Your task to perform on an android device: turn vacation reply on in the gmail app Image 0: 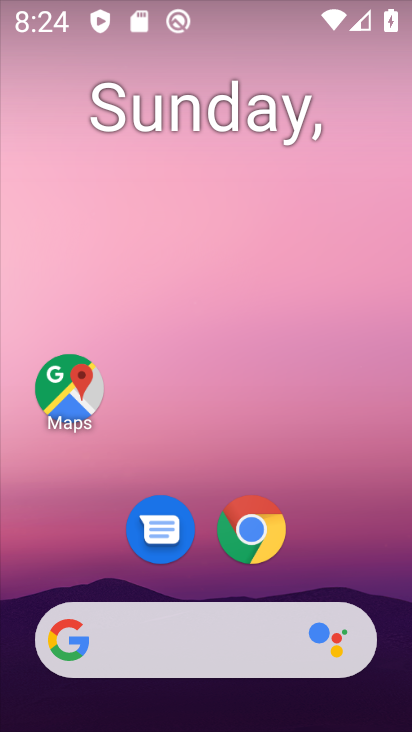
Step 0: drag from (294, 572) to (271, 160)
Your task to perform on an android device: turn vacation reply on in the gmail app Image 1: 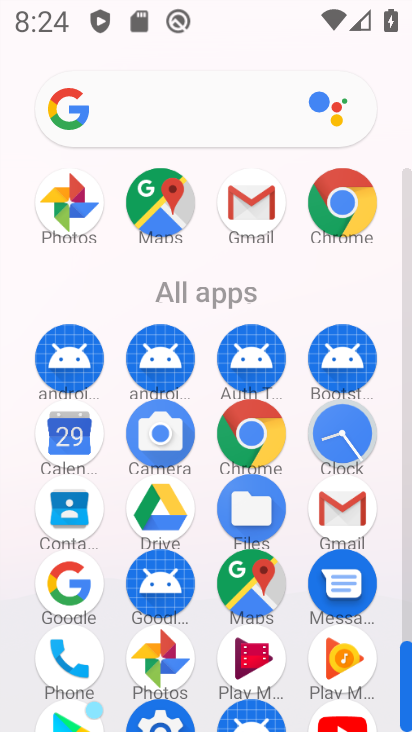
Step 1: click (338, 508)
Your task to perform on an android device: turn vacation reply on in the gmail app Image 2: 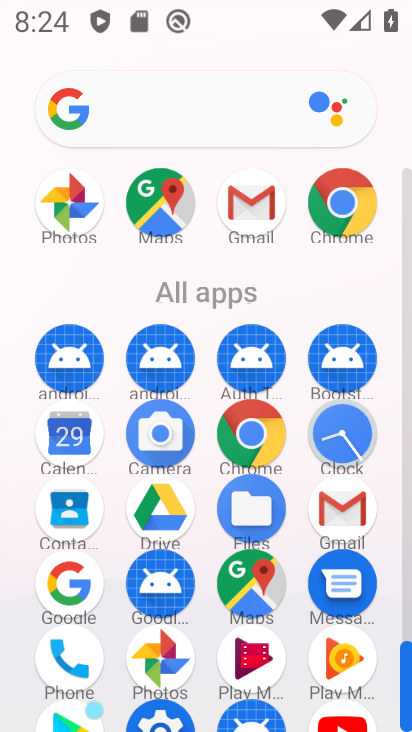
Step 2: click (338, 508)
Your task to perform on an android device: turn vacation reply on in the gmail app Image 3: 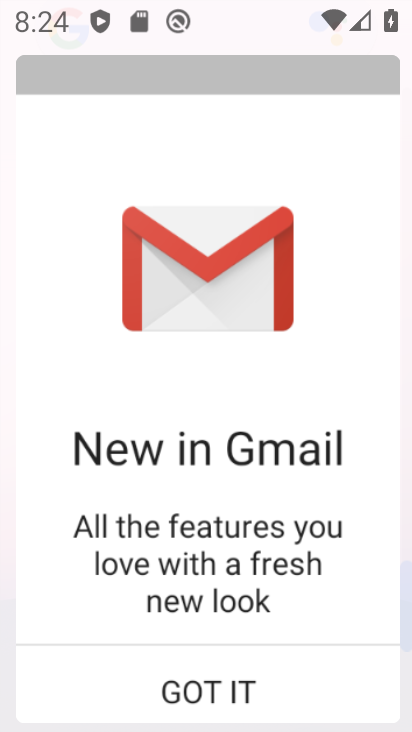
Step 3: click (343, 502)
Your task to perform on an android device: turn vacation reply on in the gmail app Image 4: 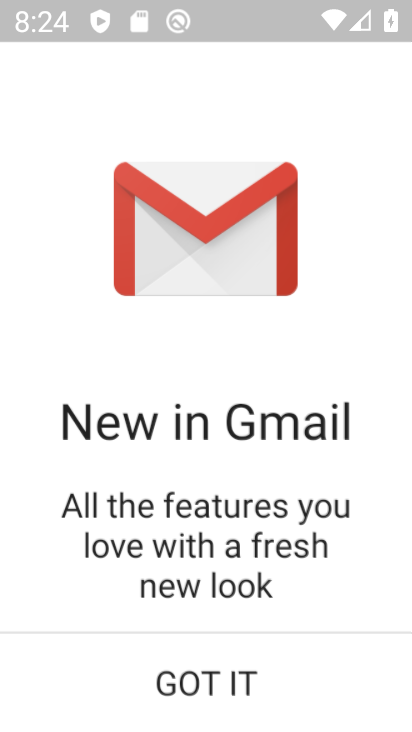
Step 4: click (343, 502)
Your task to perform on an android device: turn vacation reply on in the gmail app Image 5: 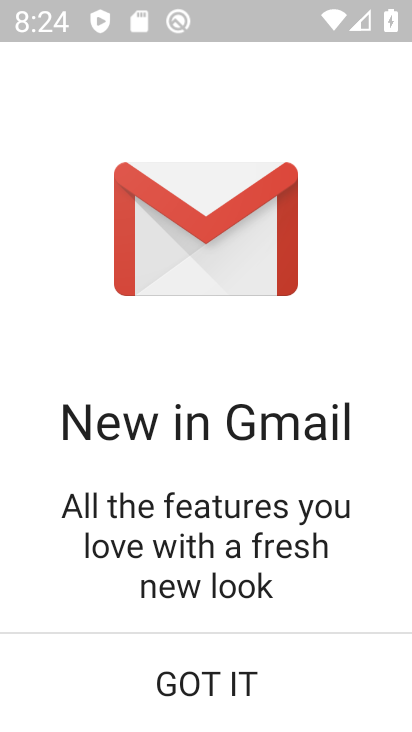
Step 5: click (343, 502)
Your task to perform on an android device: turn vacation reply on in the gmail app Image 6: 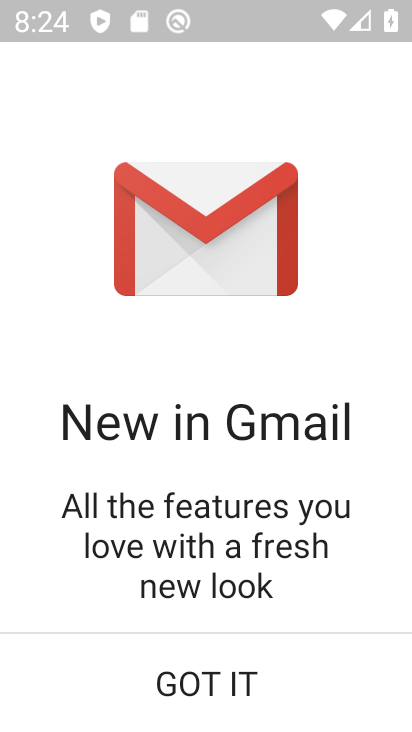
Step 6: click (214, 667)
Your task to perform on an android device: turn vacation reply on in the gmail app Image 7: 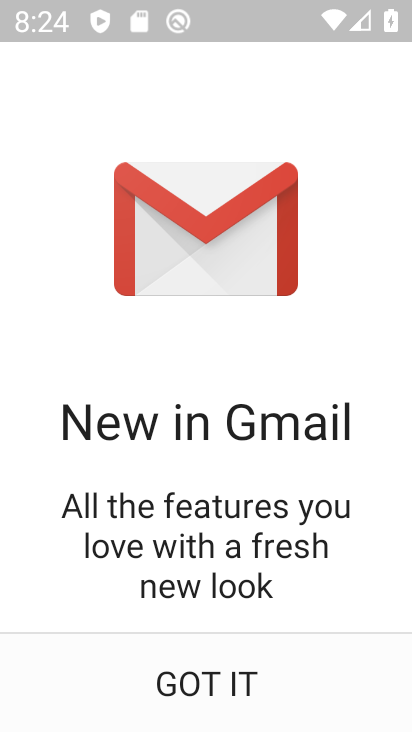
Step 7: click (235, 674)
Your task to perform on an android device: turn vacation reply on in the gmail app Image 8: 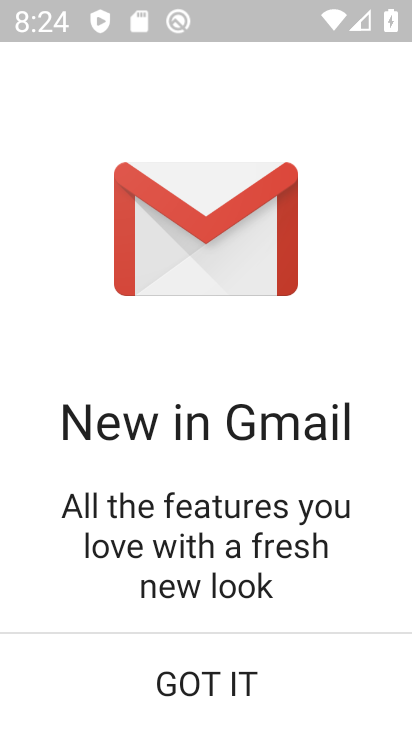
Step 8: click (235, 674)
Your task to perform on an android device: turn vacation reply on in the gmail app Image 9: 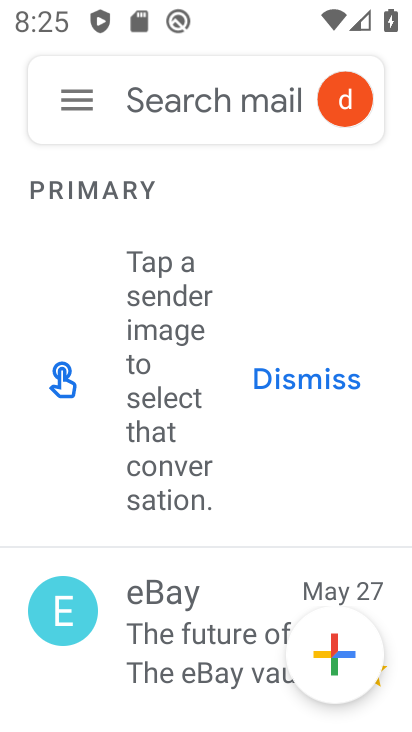
Step 9: drag from (210, 559) to (194, 114)
Your task to perform on an android device: turn vacation reply on in the gmail app Image 10: 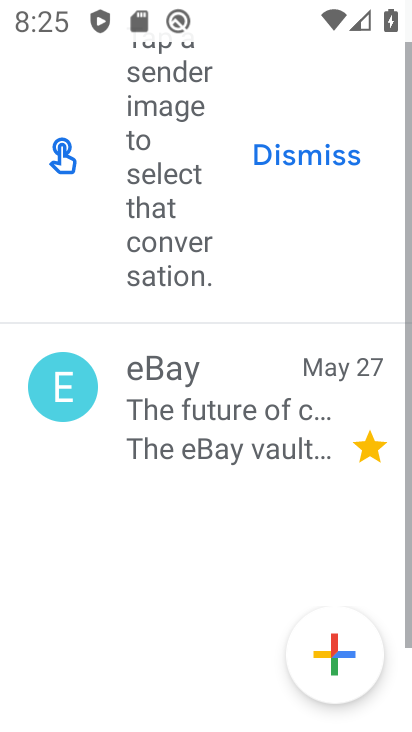
Step 10: drag from (237, 439) to (206, 47)
Your task to perform on an android device: turn vacation reply on in the gmail app Image 11: 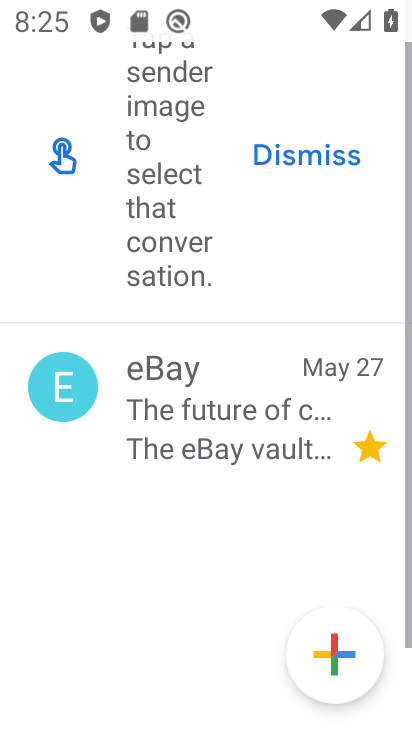
Step 11: drag from (181, 343) to (199, 63)
Your task to perform on an android device: turn vacation reply on in the gmail app Image 12: 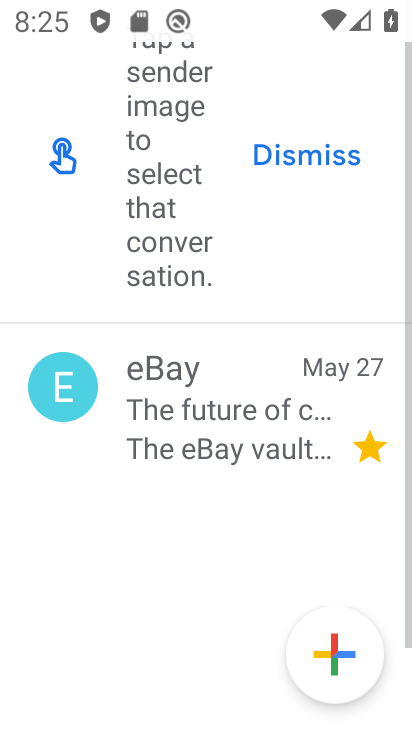
Step 12: drag from (230, 315) to (235, 113)
Your task to perform on an android device: turn vacation reply on in the gmail app Image 13: 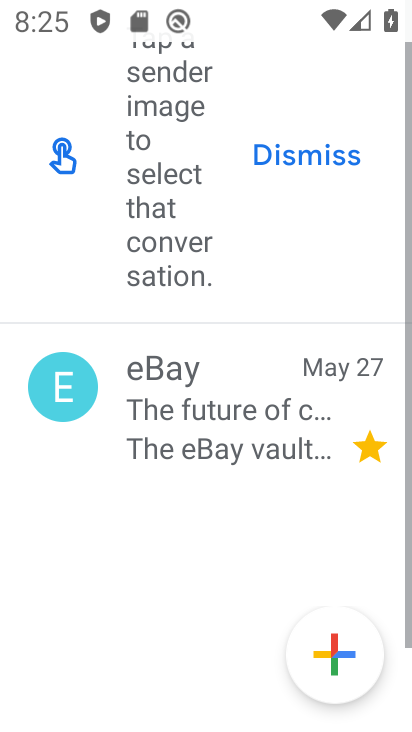
Step 13: drag from (232, 490) to (228, 109)
Your task to perform on an android device: turn vacation reply on in the gmail app Image 14: 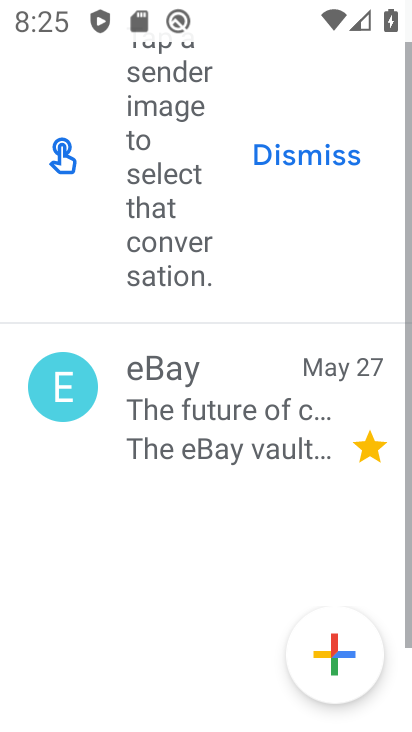
Step 14: drag from (205, 425) to (157, 73)
Your task to perform on an android device: turn vacation reply on in the gmail app Image 15: 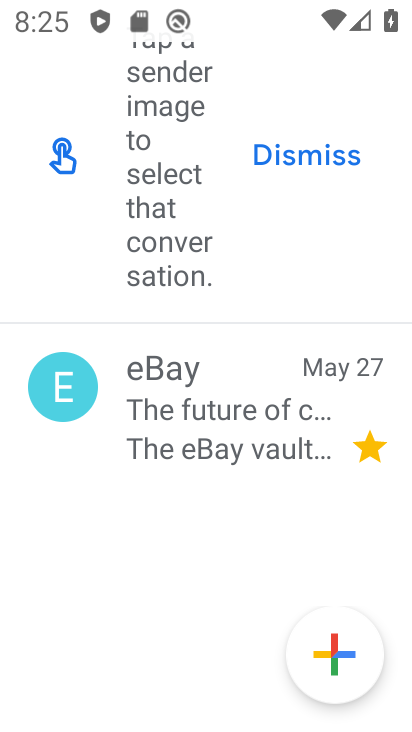
Step 15: press back button
Your task to perform on an android device: turn vacation reply on in the gmail app Image 16: 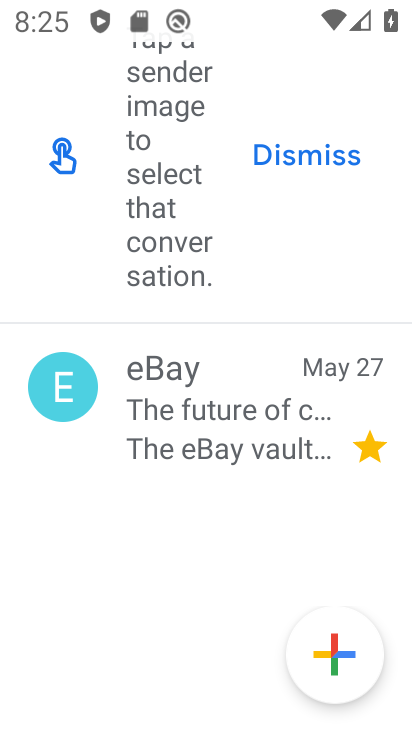
Step 16: press back button
Your task to perform on an android device: turn vacation reply on in the gmail app Image 17: 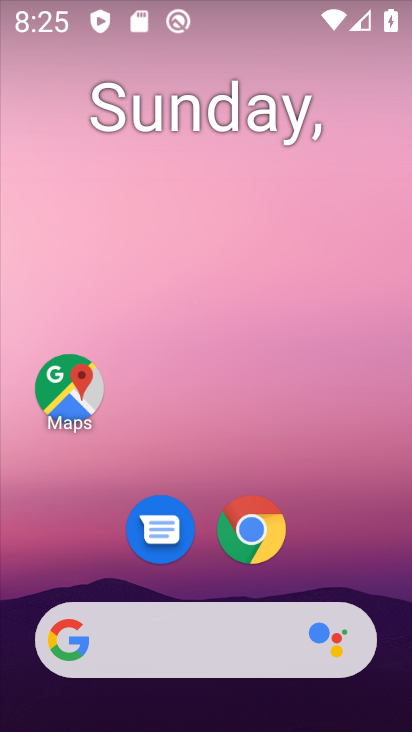
Step 17: drag from (194, 621) to (100, 69)
Your task to perform on an android device: turn vacation reply on in the gmail app Image 18: 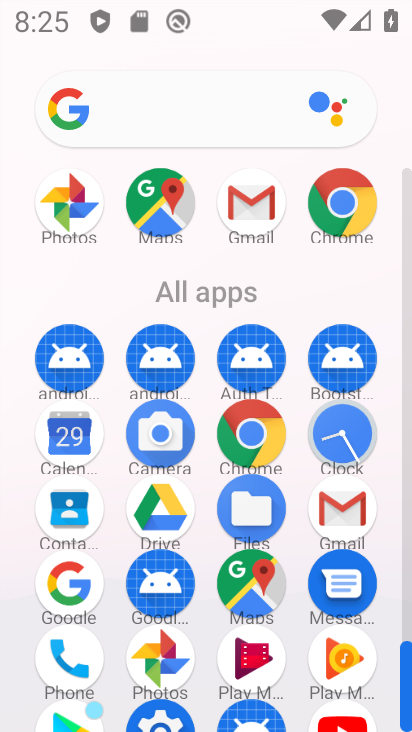
Step 18: drag from (200, 438) to (186, 0)
Your task to perform on an android device: turn vacation reply on in the gmail app Image 19: 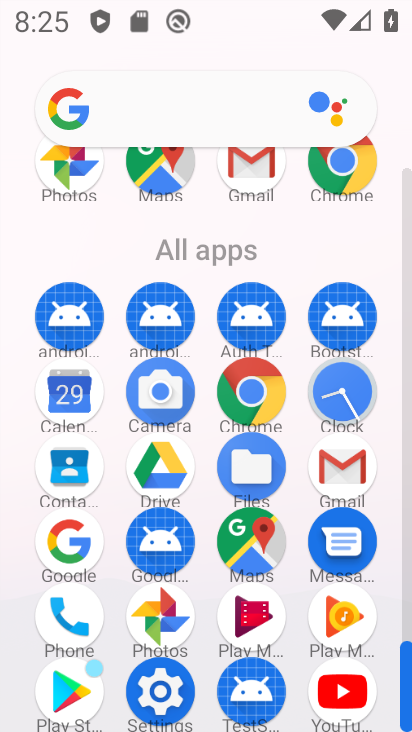
Step 19: click (343, 476)
Your task to perform on an android device: turn vacation reply on in the gmail app Image 20: 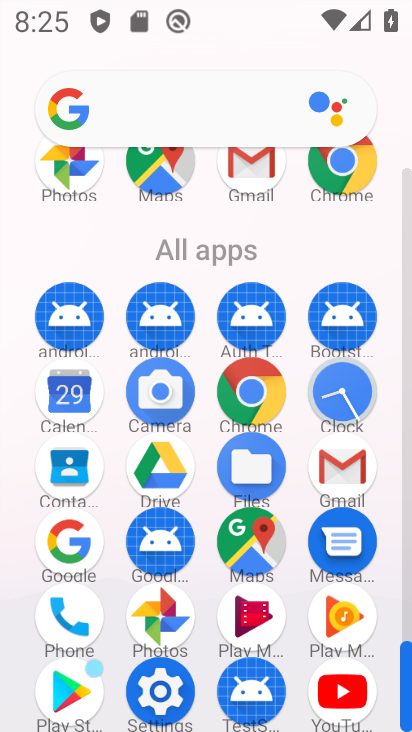
Step 20: click (343, 478)
Your task to perform on an android device: turn vacation reply on in the gmail app Image 21: 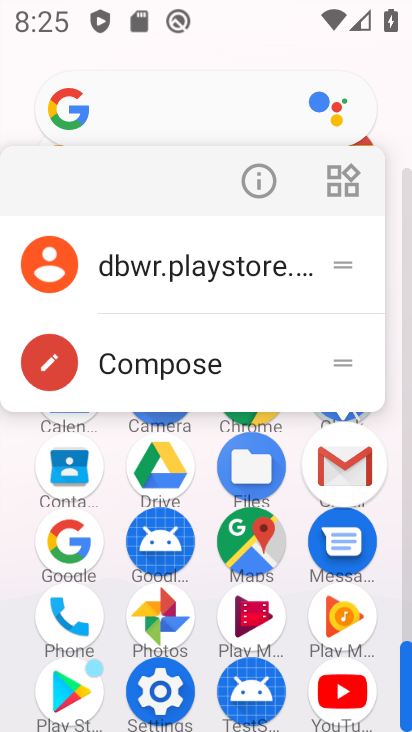
Step 21: click (347, 474)
Your task to perform on an android device: turn vacation reply on in the gmail app Image 22: 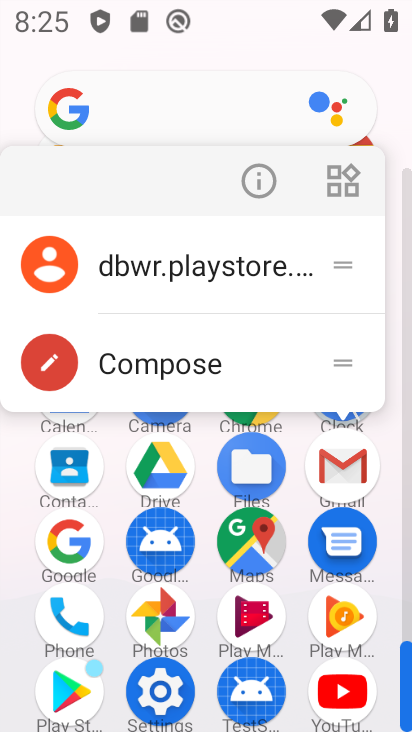
Step 22: click (347, 474)
Your task to perform on an android device: turn vacation reply on in the gmail app Image 23: 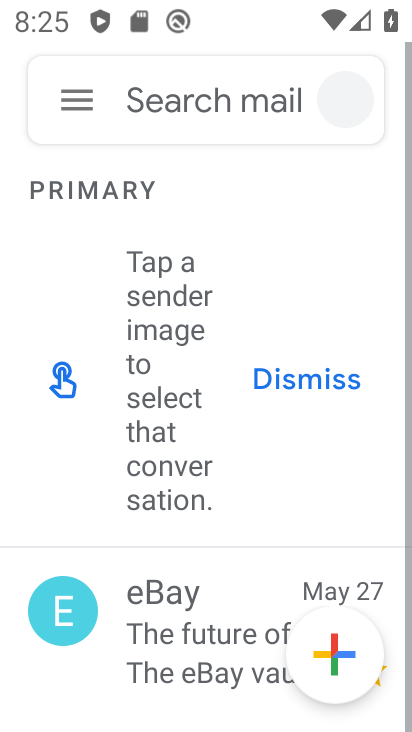
Step 23: click (345, 474)
Your task to perform on an android device: turn vacation reply on in the gmail app Image 24: 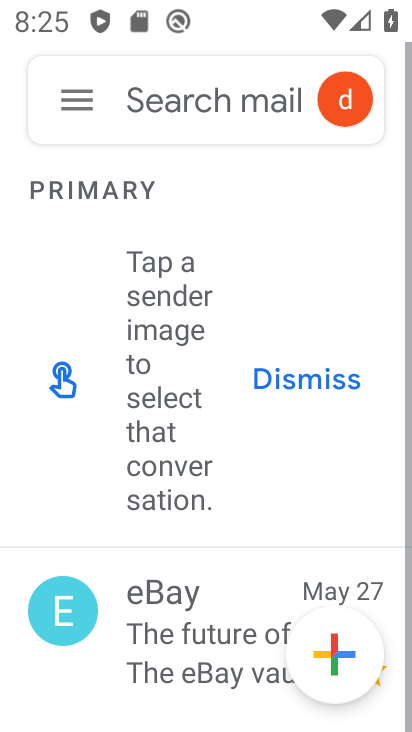
Step 24: drag from (201, 555) to (201, 176)
Your task to perform on an android device: turn vacation reply on in the gmail app Image 25: 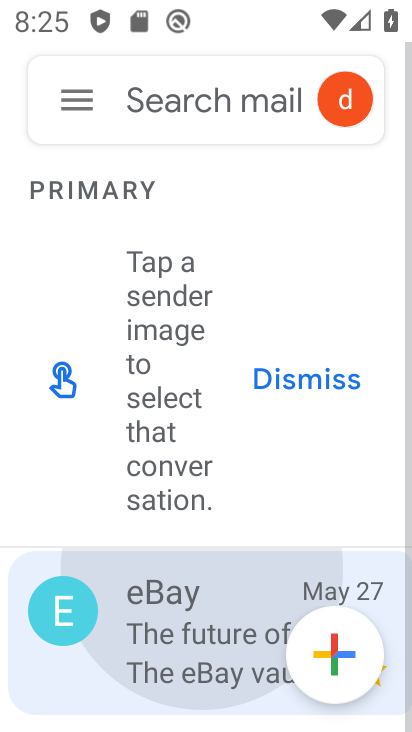
Step 25: drag from (186, 527) to (160, 135)
Your task to perform on an android device: turn vacation reply on in the gmail app Image 26: 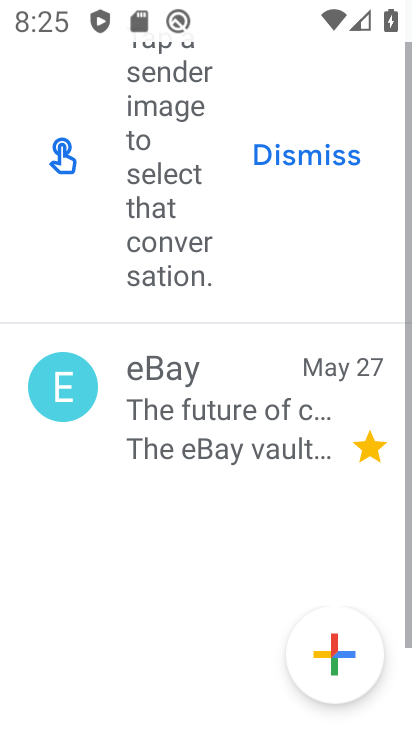
Step 26: drag from (160, 452) to (109, 57)
Your task to perform on an android device: turn vacation reply on in the gmail app Image 27: 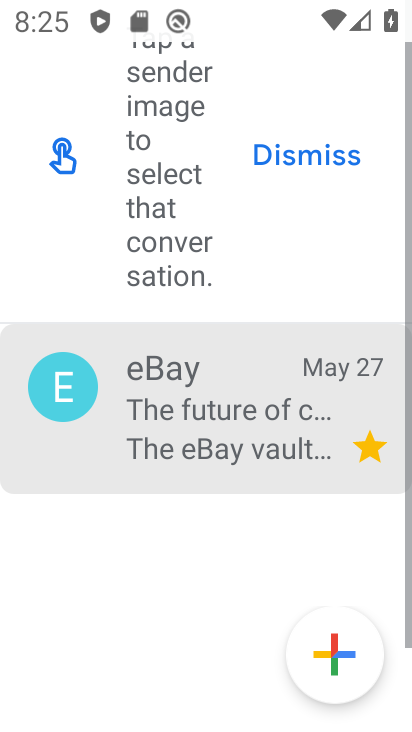
Step 27: drag from (132, 335) to (127, 79)
Your task to perform on an android device: turn vacation reply on in the gmail app Image 28: 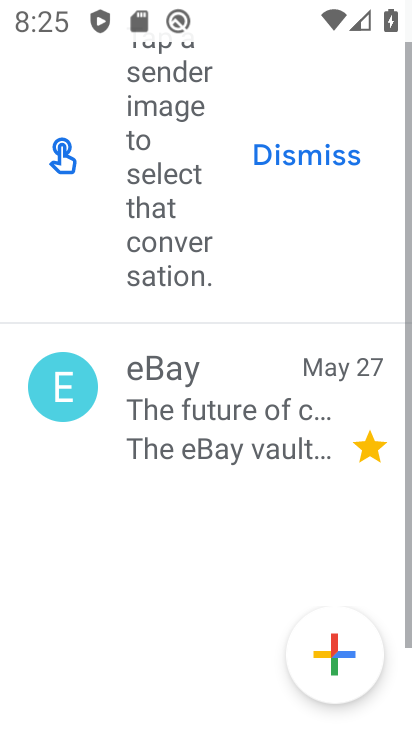
Step 28: drag from (191, 491) to (150, 267)
Your task to perform on an android device: turn vacation reply on in the gmail app Image 29: 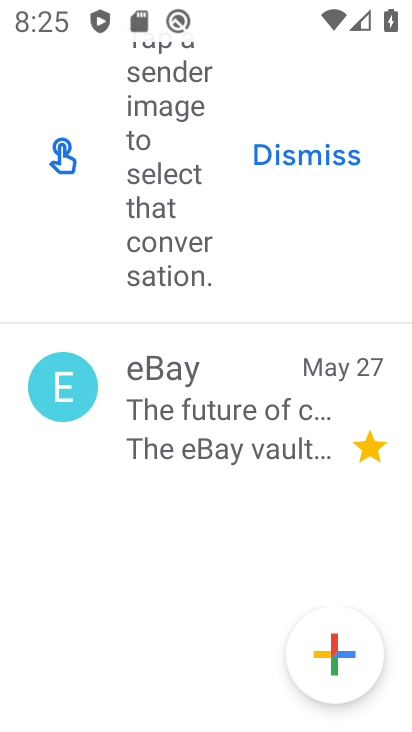
Step 29: drag from (170, 377) to (143, 30)
Your task to perform on an android device: turn vacation reply on in the gmail app Image 30: 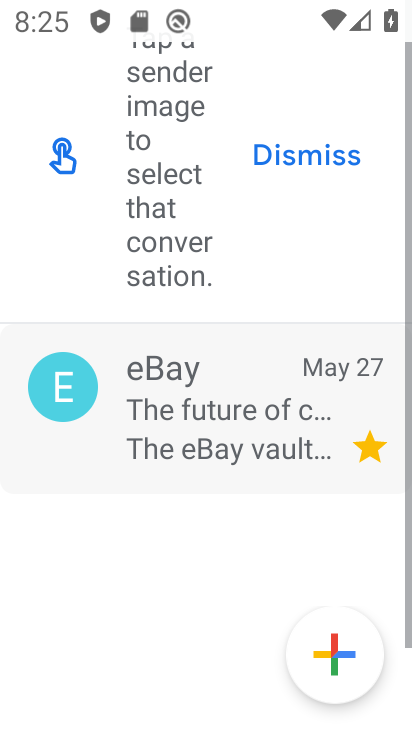
Step 30: drag from (107, 140) to (197, 624)
Your task to perform on an android device: turn vacation reply on in the gmail app Image 31: 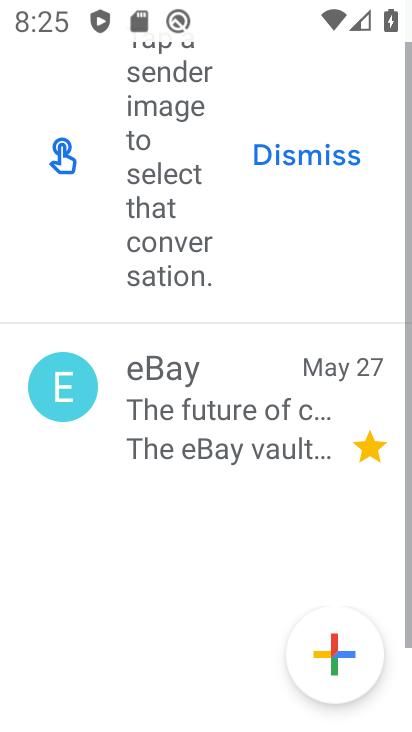
Step 31: drag from (144, 284) to (224, 562)
Your task to perform on an android device: turn vacation reply on in the gmail app Image 32: 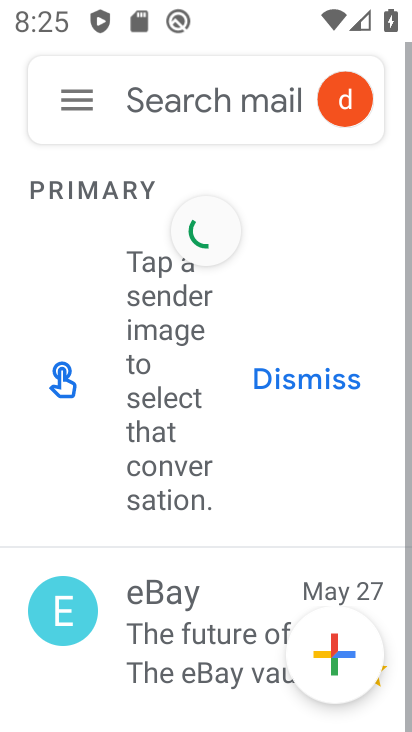
Step 32: drag from (181, 210) to (279, 584)
Your task to perform on an android device: turn vacation reply on in the gmail app Image 33: 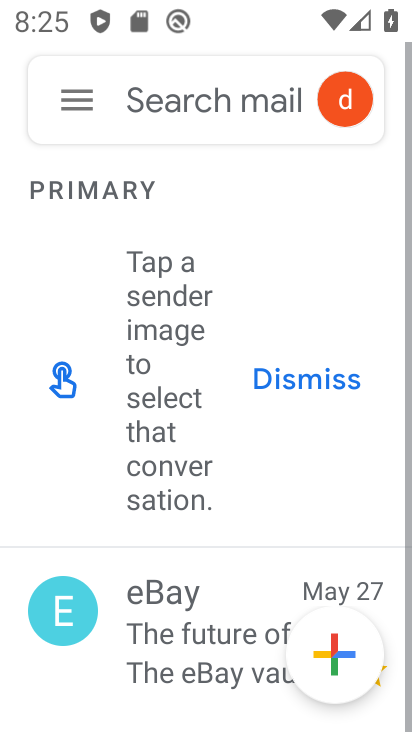
Step 33: click (80, 102)
Your task to perform on an android device: turn vacation reply on in the gmail app Image 34: 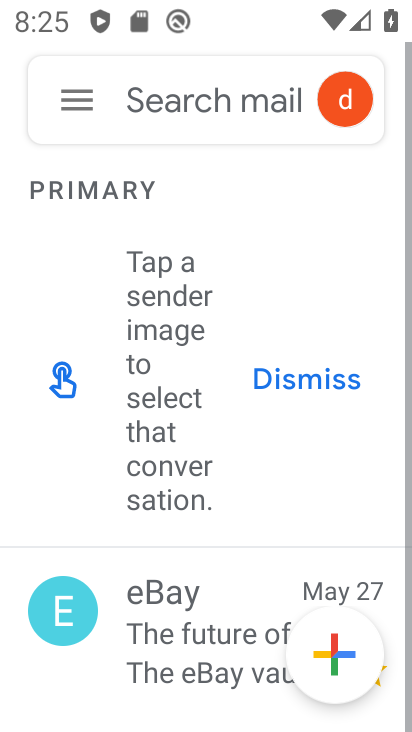
Step 34: click (81, 101)
Your task to perform on an android device: turn vacation reply on in the gmail app Image 35: 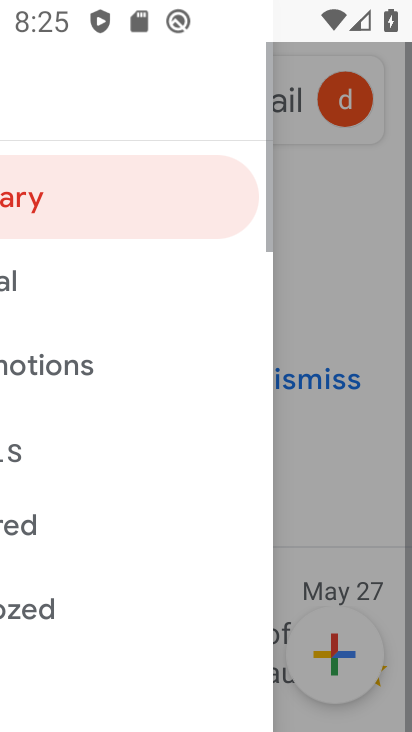
Step 35: click (81, 101)
Your task to perform on an android device: turn vacation reply on in the gmail app Image 36: 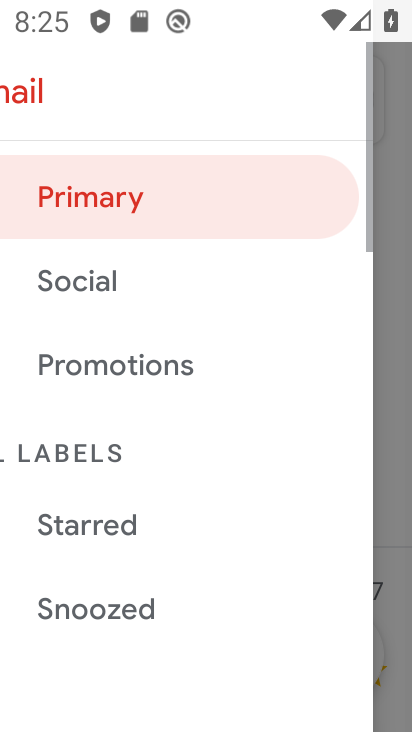
Step 36: click (81, 101)
Your task to perform on an android device: turn vacation reply on in the gmail app Image 37: 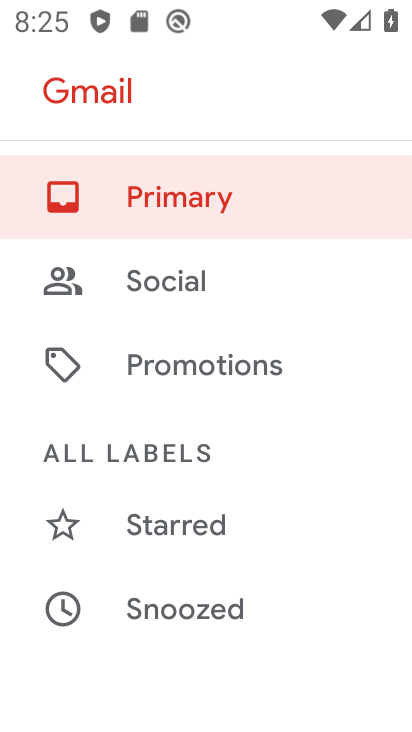
Step 37: drag from (187, 595) to (172, 240)
Your task to perform on an android device: turn vacation reply on in the gmail app Image 38: 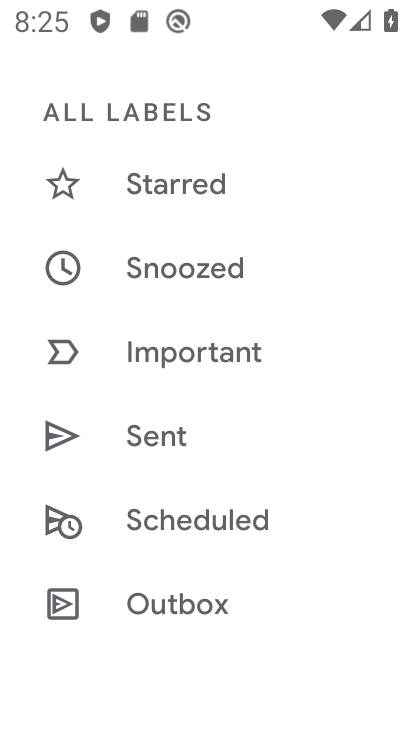
Step 38: drag from (191, 502) to (190, 208)
Your task to perform on an android device: turn vacation reply on in the gmail app Image 39: 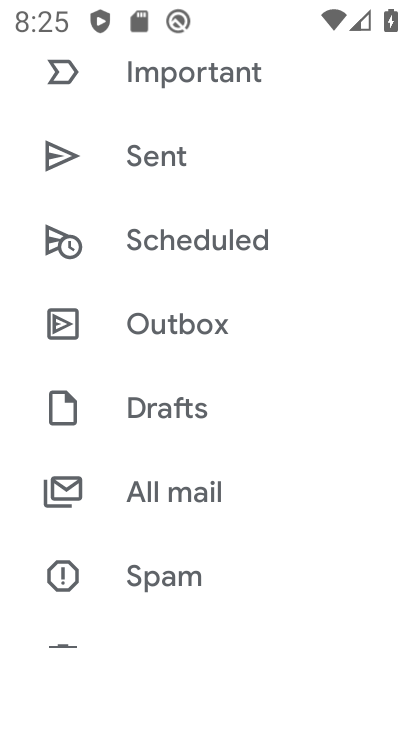
Step 39: drag from (171, 484) to (175, 216)
Your task to perform on an android device: turn vacation reply on in the gmail app Image 40: 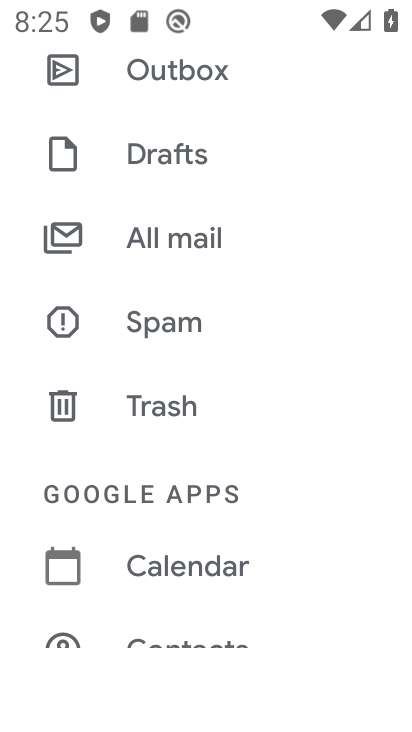
Step 40: drag from (202, 526) to (184, 208)
Your task to perform on an android device: turn vacation reply on in the gmail app Image 41: 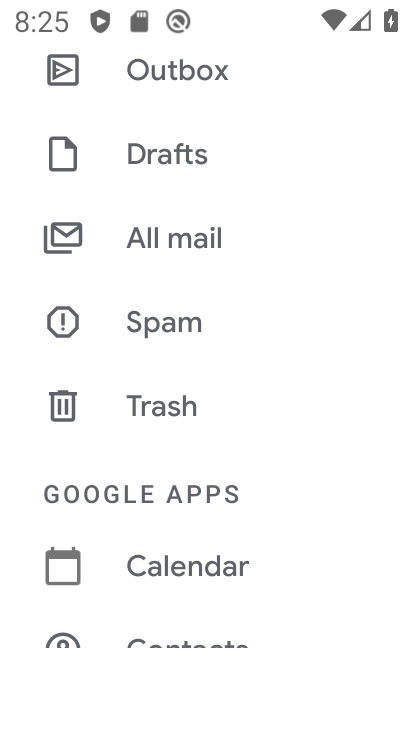
Step 41: drag from (203, 381) to (177, 157)
Your task to perform on an android device: turn vacation reply on in the gmail app Image 42: 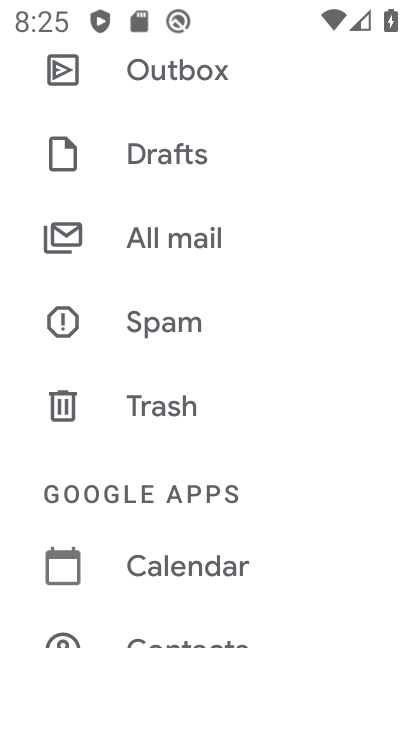
Step 42: drag from (189, 367) to (191, 109)
Your task to perform on an android device: turn vacation reply on in the gmail app Image 43: 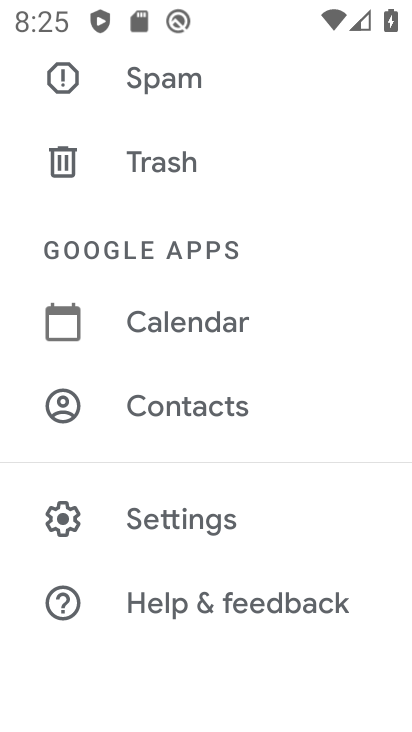
Step 43: drag from (164, 496) to (192, 103)
Your task to perform on an android device: turn vacation reply on in the gmail app Image 44: 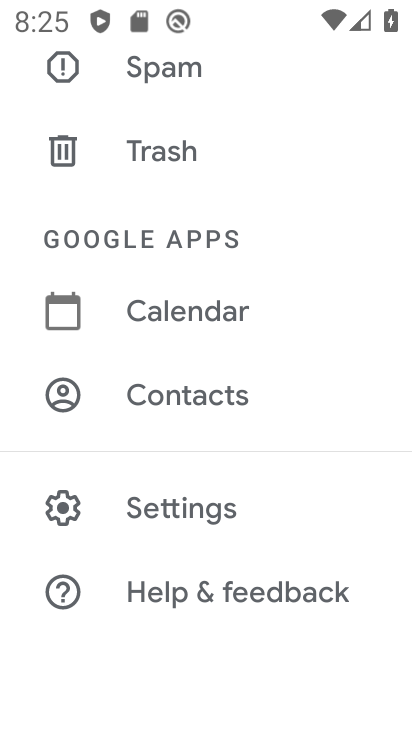
Step 44: click (169, 502)
Your task to perform on an android device: turn vacation reply on in the gmail app Image 45: 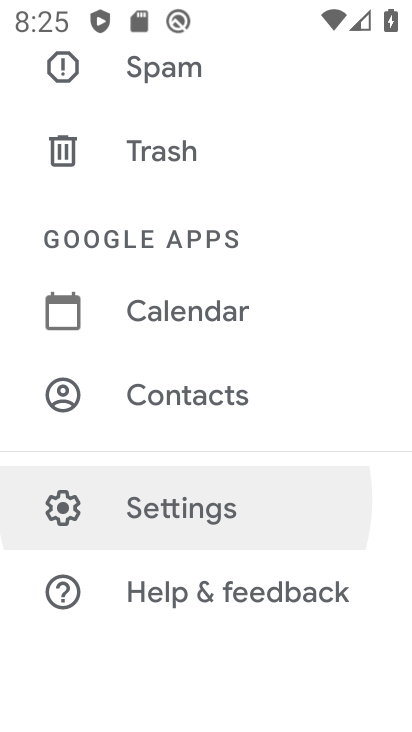
Step 45: click (170, 502)
Your task to perform on an android device: turn vacation reply on in the gmail app Image 46: 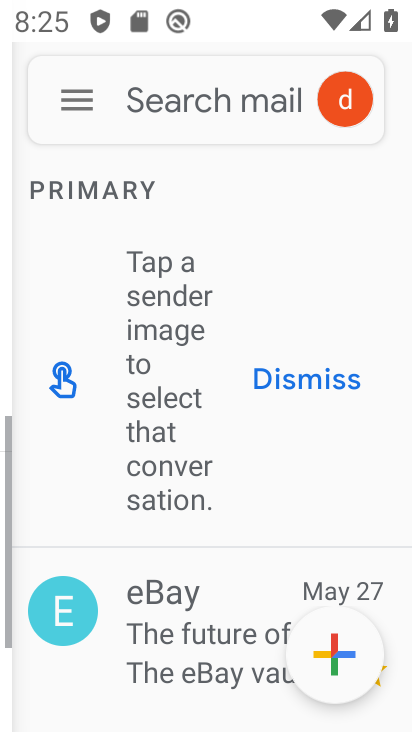
Step 46: click (171, 502)
Your task to perform on an android device: turn vacation reply on in the gmail app Image 47: 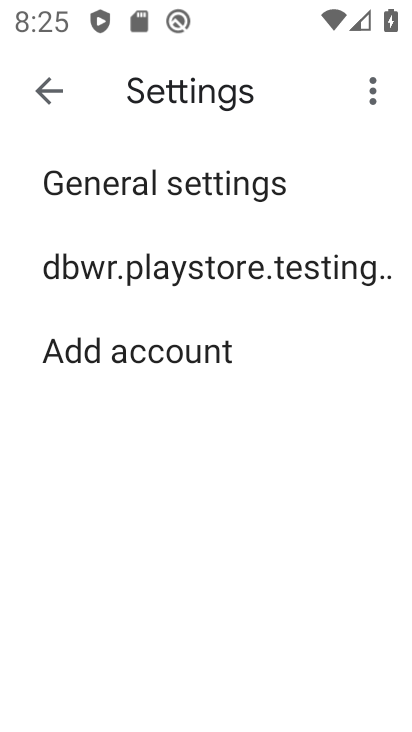
Step 47: click (175, 269)
Your task to perform on an android device: turn vacation reply on in the gmail app Image 48: 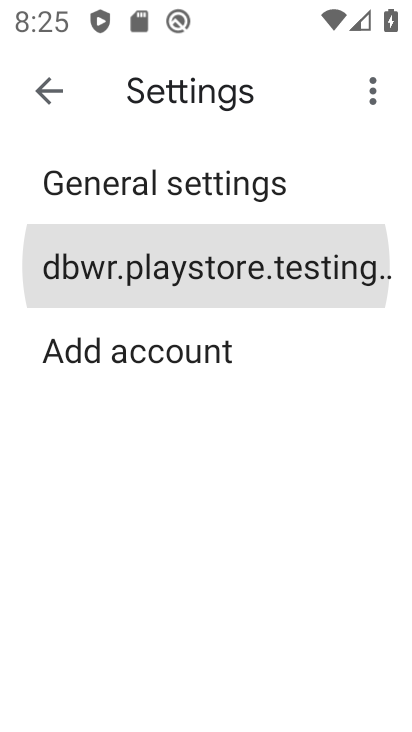
Step 48: click (175, 269)
Your task to perform on an android device: turn vacation reply on in the gmail app Image 49: 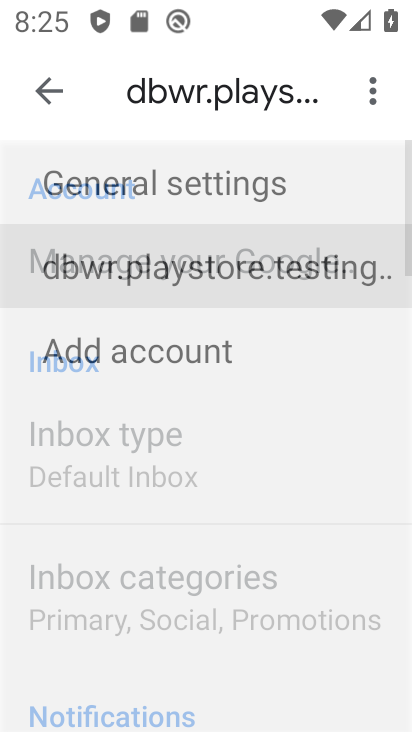
Step 49: click (175, 269)
Your task to perform on an android device: turn vacation reply on in the gmail app Image 50: 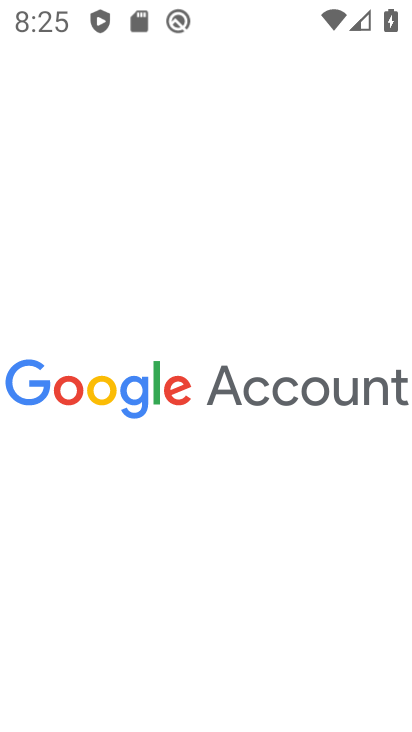
Step 50: drag from (143, 459) to (145, 199)
Your task to perform on an android device: turn vacation reply on in the gmail app Image 51: 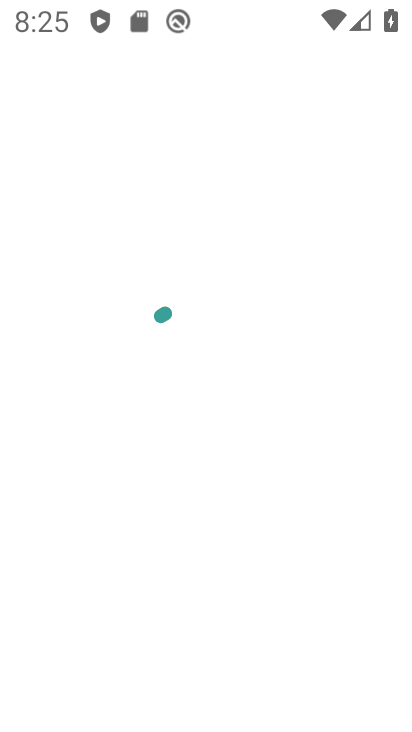
Step 51: press back button
Your task to perform on an android device: turn vacation reply on in the gmail app Image 52: 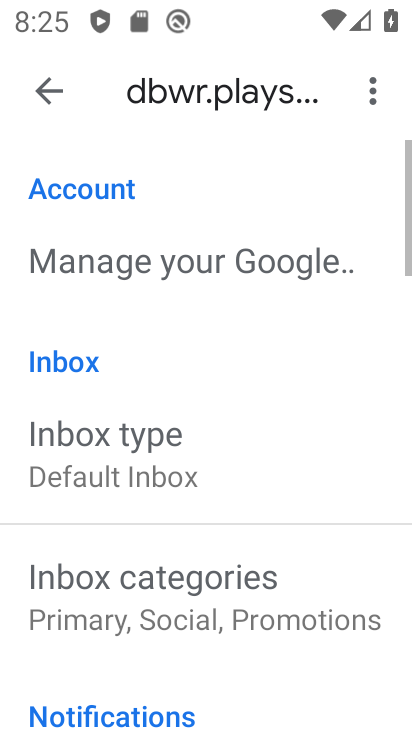
Step 52: drag from (143, 524) to (133, 214)
Your task to perform on an android device: turn vacation reply on in the gmail app Image 53: 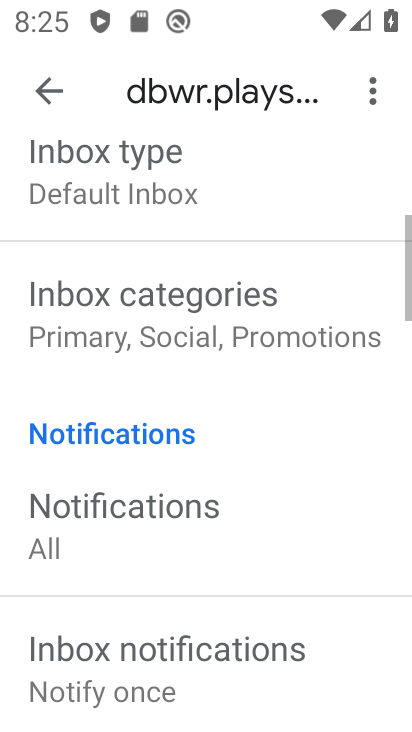
Step 53: drag from (177, 488) to (195, 136)
Your task to perform on an android device: turn vacation reply on in the gmail app Image 54: 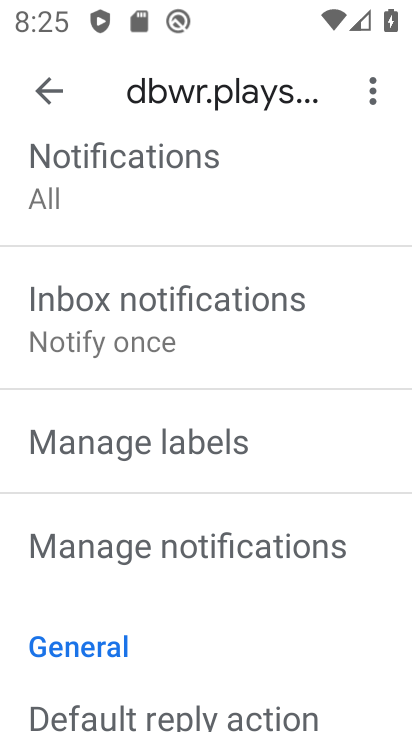
Step 54: drag from (185, 499) to (159, 201)
Your task to perform on an android device: turn vacation reply on in the gmail app Image 55: 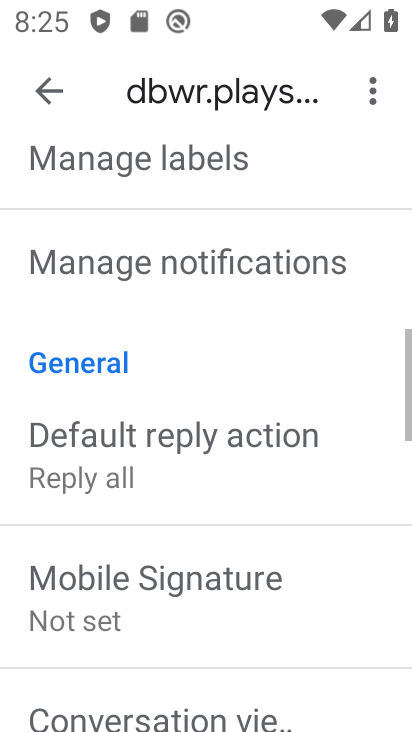
Step 55: drag from (171, 315) to (171, 136)
Your task to perform on an android device: turn vacation reply on in the gmail app Image 56: 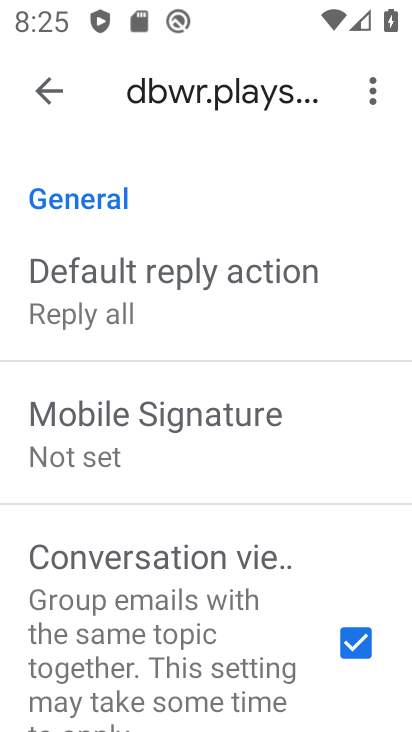
Step 56: drag from (130, 602) to (139, 245)
Your task to perform on an android device: turn vacation reply on in the gmail app Image 57: 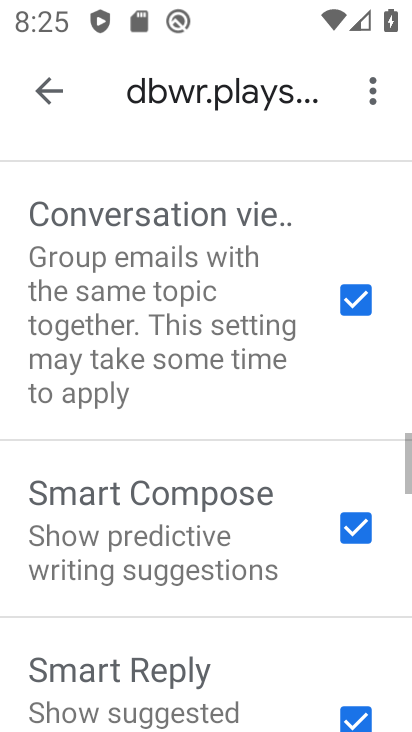
Step 57: drag from (146, 430) to (152, 126)
Your task to perform on an android device: turn vacation reply on in the gmail app Image 58: 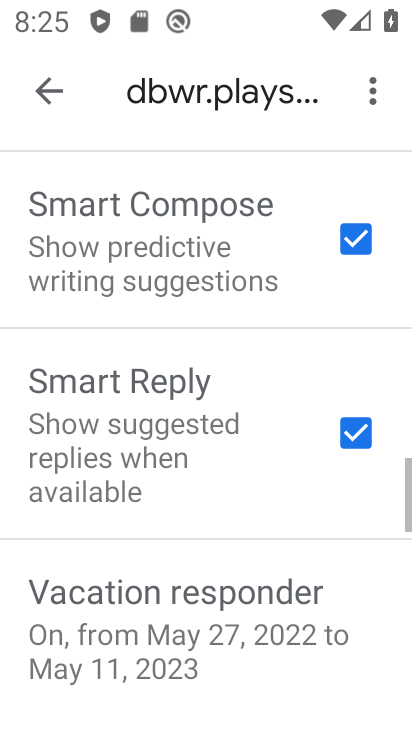
Step 58: drag from (166, 413) to (184, 108)
Your task to perform on an android device: turn vacation reply on in the gmail app Image 59: 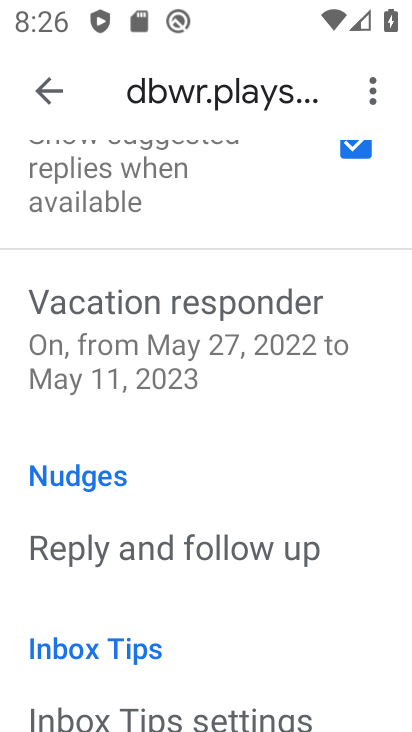
Step 59: click (168, 325)
Your task to perform on an android device: turn vacation reply on in the gmail app Image 60: 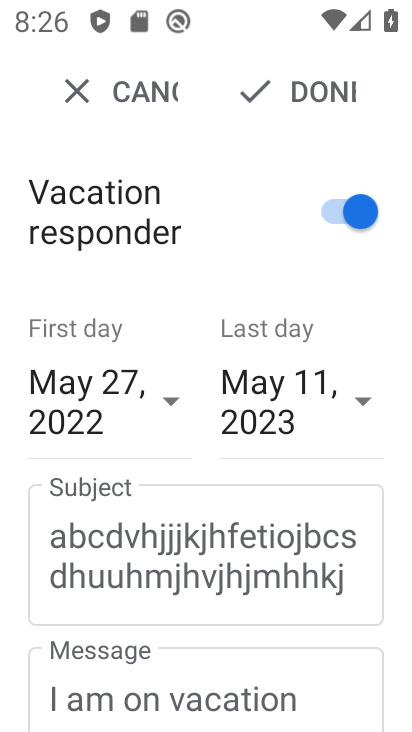
Step 60: click (351, 207)
Your task to perform on an android device: turn vacation reply on in the gmail app Image 61: 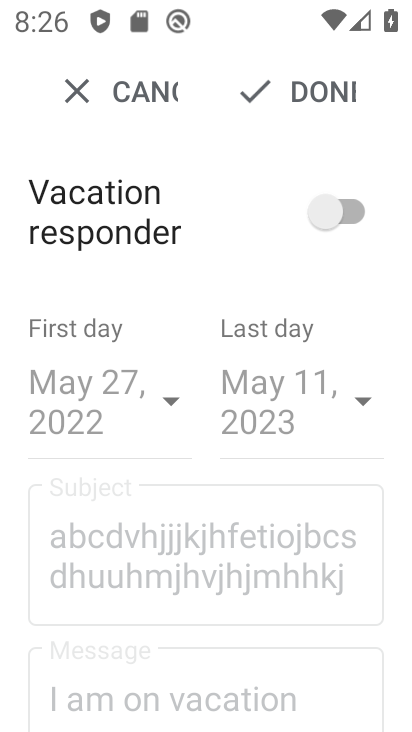
Step 61: task complete